Your task to perform on an android device: turn on location history Image 0: 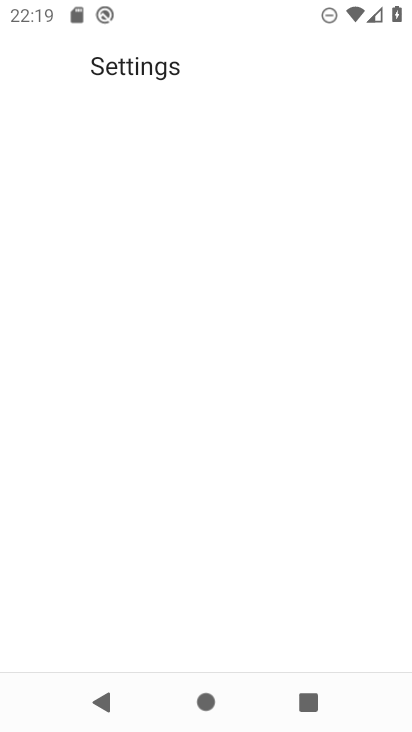
Step 0: drag from (149, 568) to (203, 11)
Your task to perform on an android device: turn on location history Image 1: 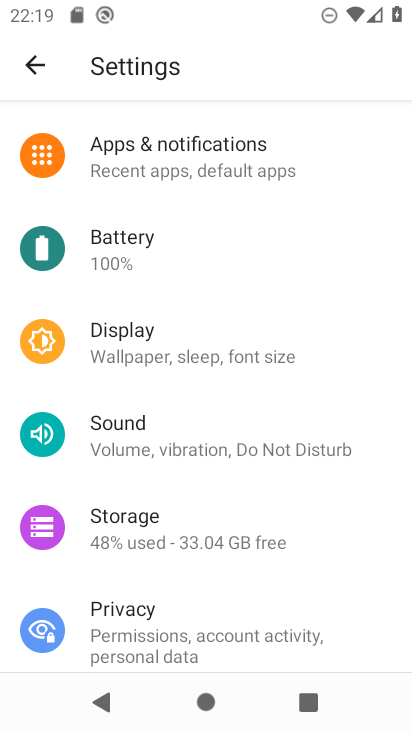
Step 1: press home button
Your task to perform on an android device: turn on location history Image 2: 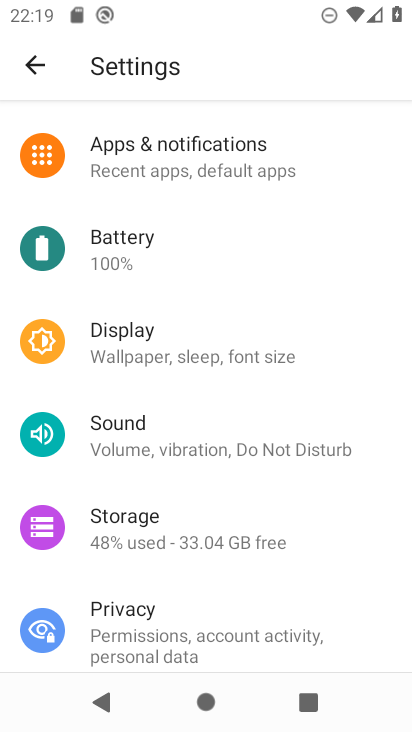
Step 2: drag from (203, 11) to (368, 436)
Your task to perform on an android device: turn on location history Image 3: 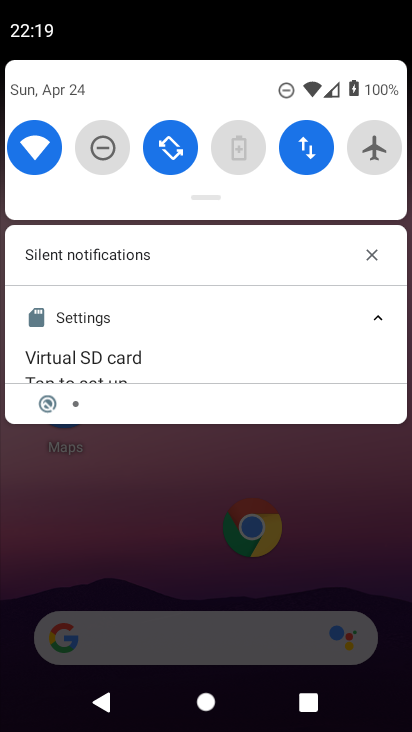
Step 3: drag from (182, 572) to (405, 1)
Your task to perform on an android device: turn on location history Image 4: 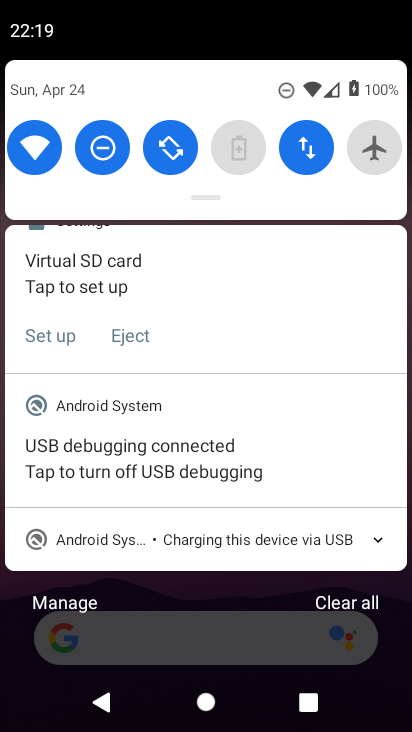
Step 4: drag from (147, 611) to (207, 45)
Your task to perform on an android device: turn on location history Image 5: 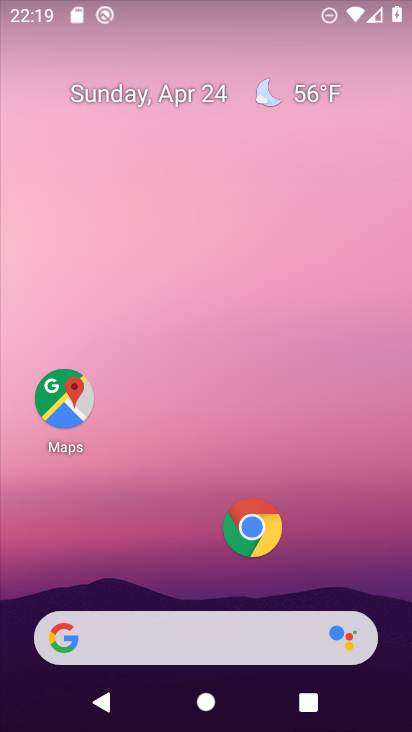
Step 5: drag from (184, 590) to (329, 20)
Your task to perform on an android device: turn on location history Image 6: 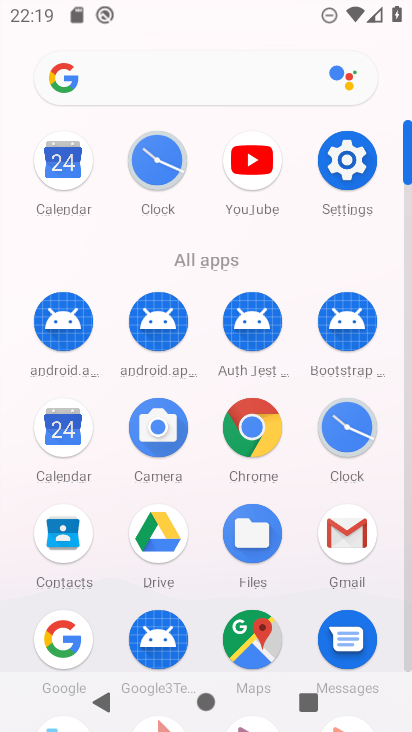
Step 6: click (352, 168)
Your task to perform on an android device: turn on location history Image 7: 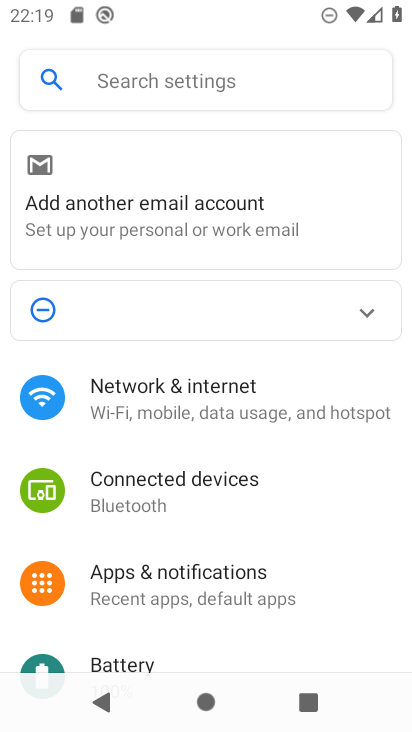
Step 7: drag from (150, 618) to (217, 261)
Your task to perform on an android device: turn on location history Image 8: 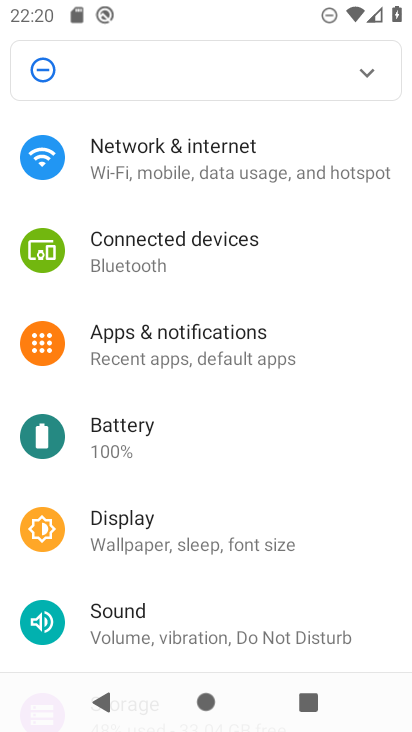
Step 8: drag from (170, 600) to (219, 216)
Your task to perform on an android device: turn on location history Image 9: 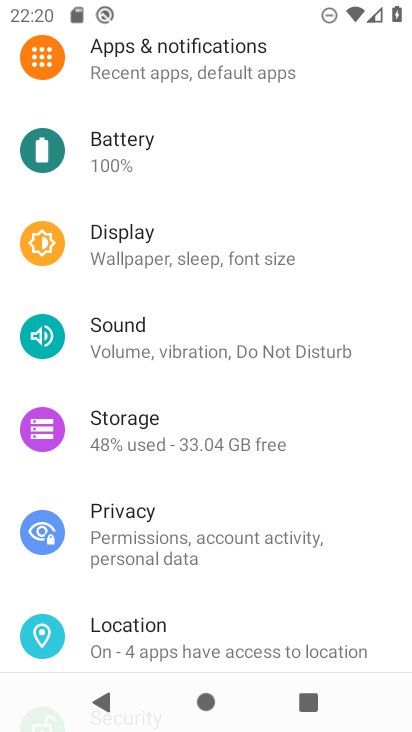
Step 9: click (120, 623)
Your task to perform on an android device: turn on location history Image 10: 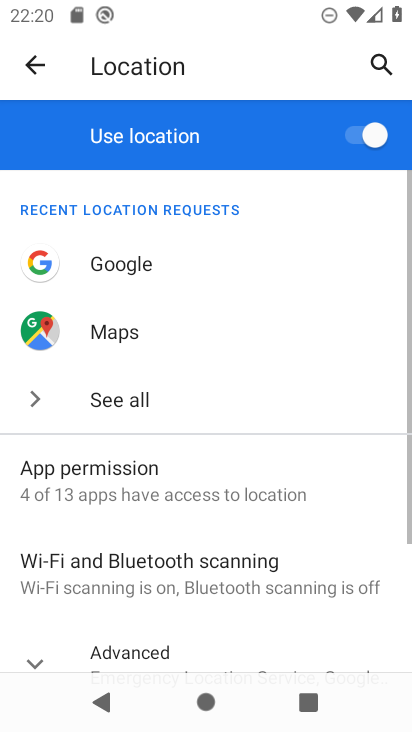
Step 10: drag from (141, 582) to (190, 246)
Your task to perform on an android device: turn on location history Image 11: 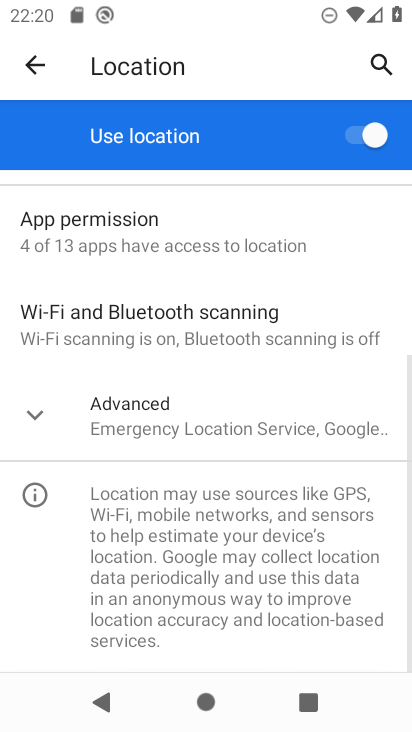
Step 11: click (124, 405)
Your task to perform on an android device: turn on location history Image 12: 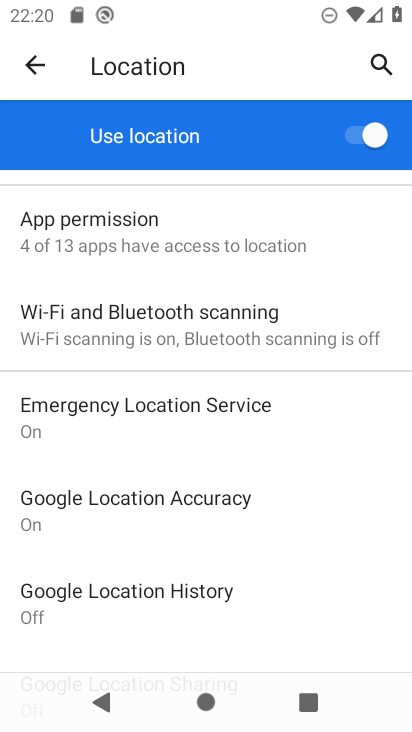
Step 12: click (131, 586)
Your task to perform on an android device: turn on location history Image 13: 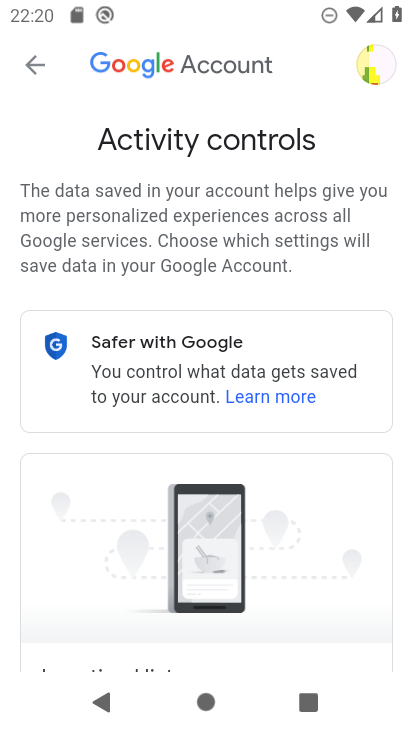
Step 13: drag from (208, 439) to (274, 124)
Your task to perform on an android device: turn on location history Image 14: 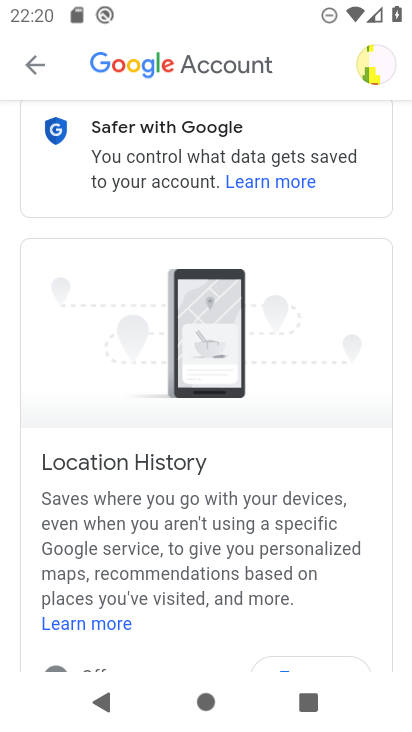
Step 14: drag from (194, 483) to (262, 89)
Your task to perform on an android device: turn on location history Image 15: 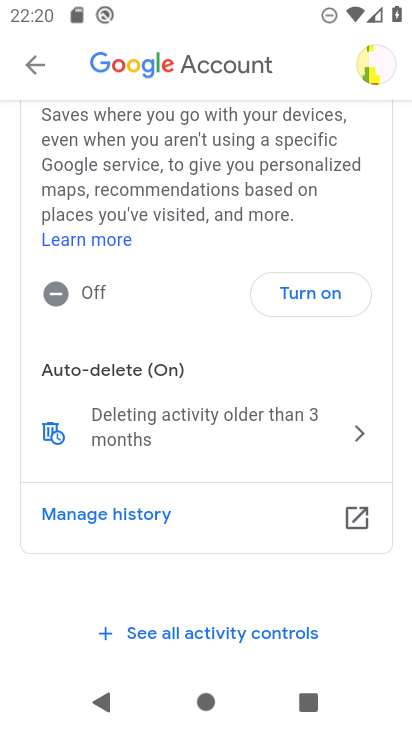
Step 15: click (294, 289)
Your task to perform on an android device: turn on location history Image 16: 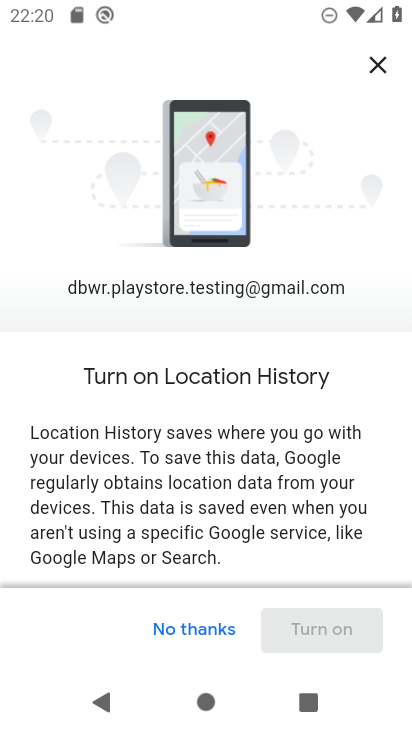
Step 16: drag from (242, 532) to (293, 116)
Your task to perform on an android device: turn on location history Image 17: 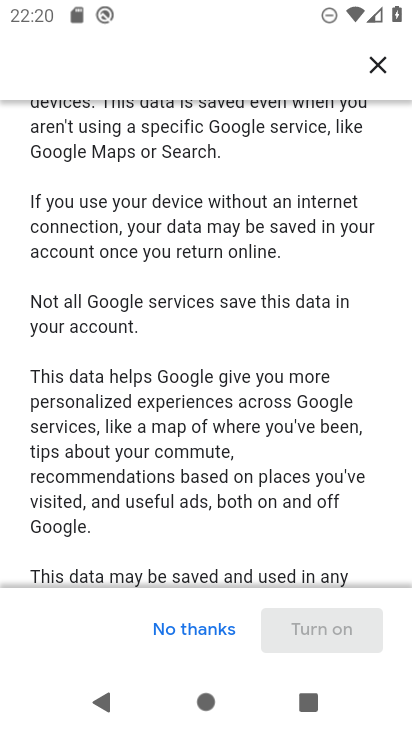
Step 17: drag from (216, 474) to (274, 80)
Your task to perform on an android device: turn on location history Image 18: 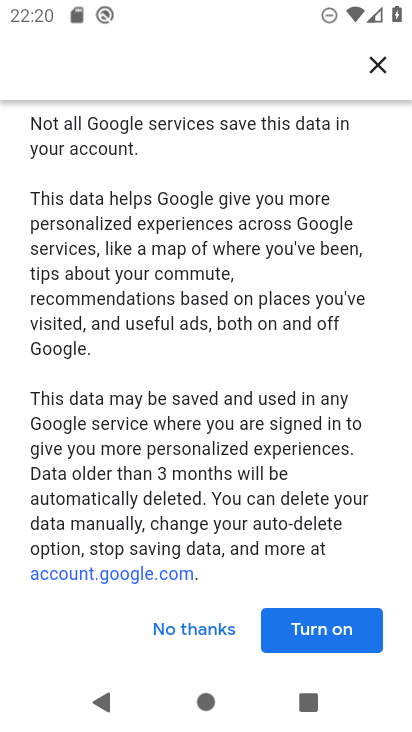
Step 18: click (335, 638)
Your task to perform on an android device: turn on location history Image 19: 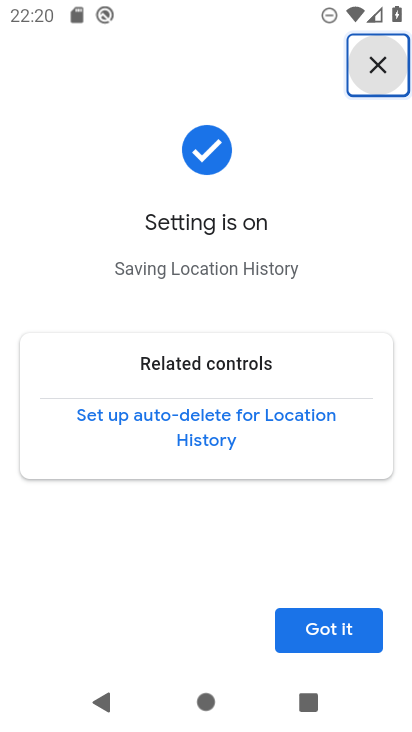
Step 19: click (331, 619)
Your task to perform on an android device: turn on location history Image 20: 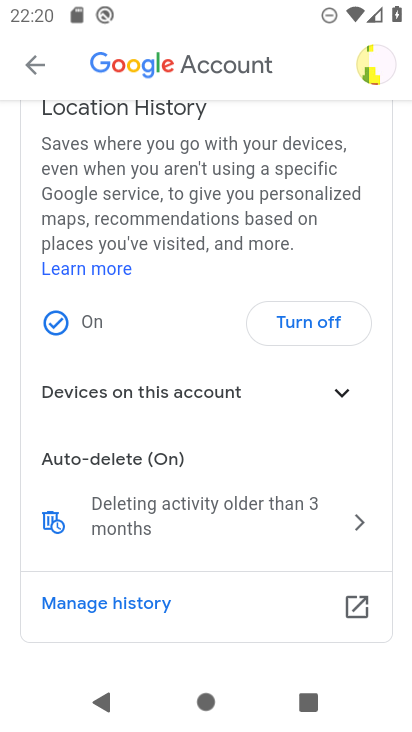
Step 20: task complete